Your task to perform on an android device: Go to display settings Image 0: 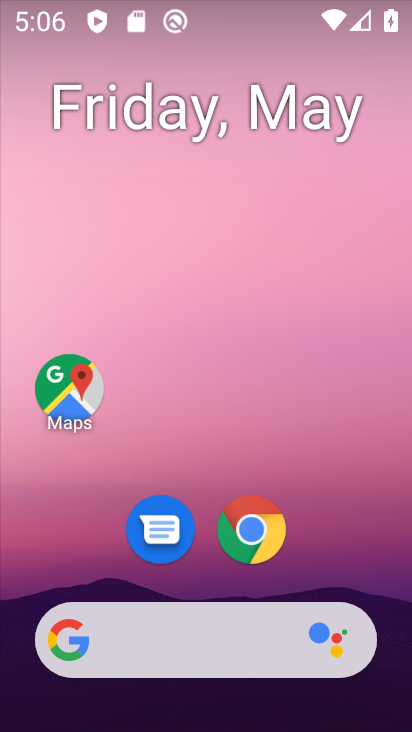
Step 0: drag from (209, 577) to (255, 0)
Your task to perform on an android device: Go to display settings Image 1: 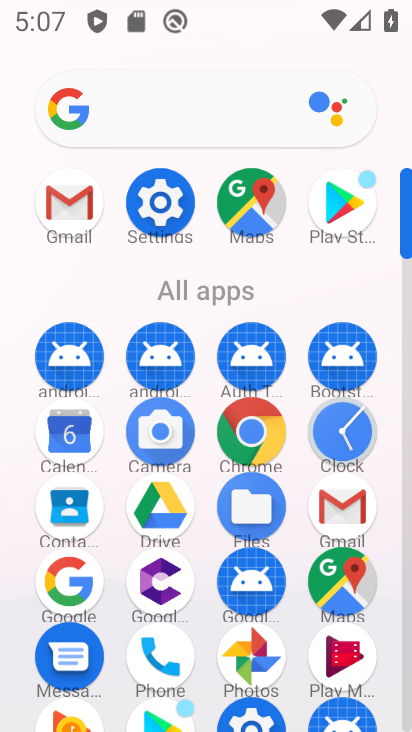
Step 1: click (160, 182)
Your task to perform on an android device: Go to display settings Image 2: 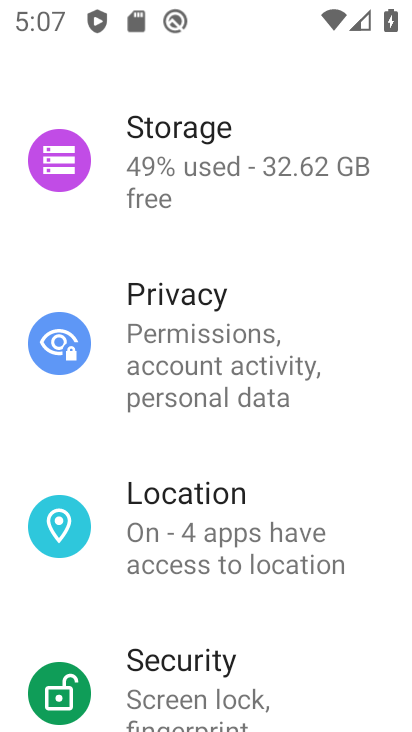
Step 2: drag from (169, 615) to (281, 139)
Your task to perform on an android device: Go to display settings Image 3: 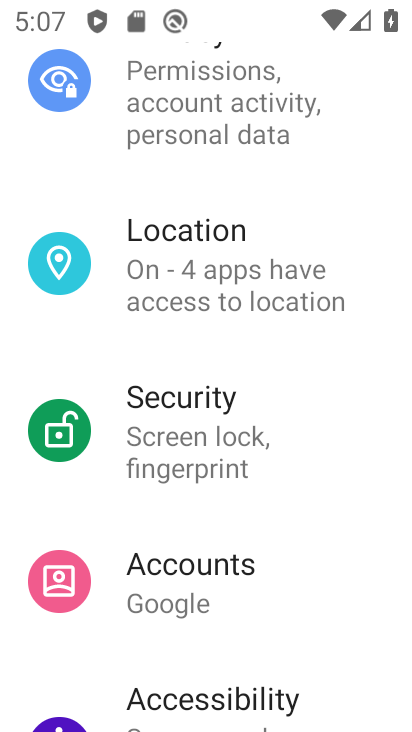
Step 3: drag from (64, 652) to (149, 219)
Your task to perform on an android device: Go to display settings Image 4: 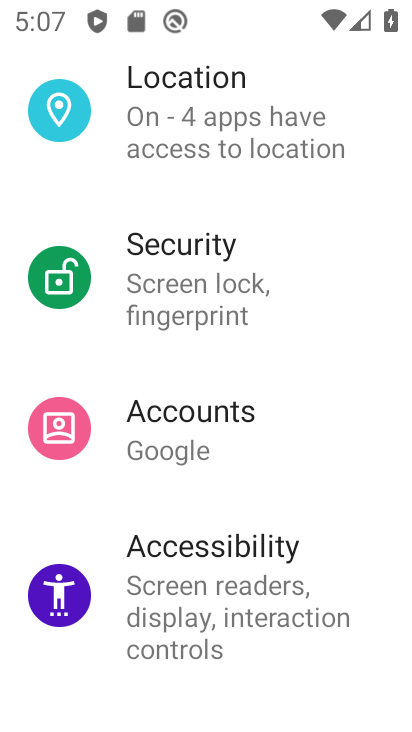
Step 4: drag from (127, 681) to (211, 225)
Your task to perform on an android device: Go to display settings Image 5: 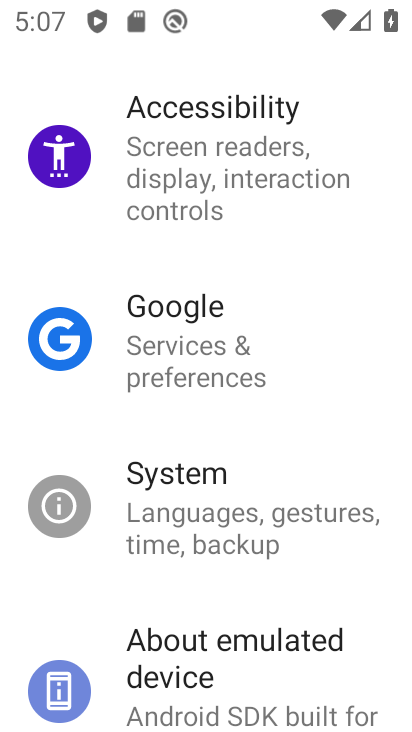
Step 5: drag from (115, 528) to (196, 228)
Your task to perform on an android device: Go to display settings Image 6: 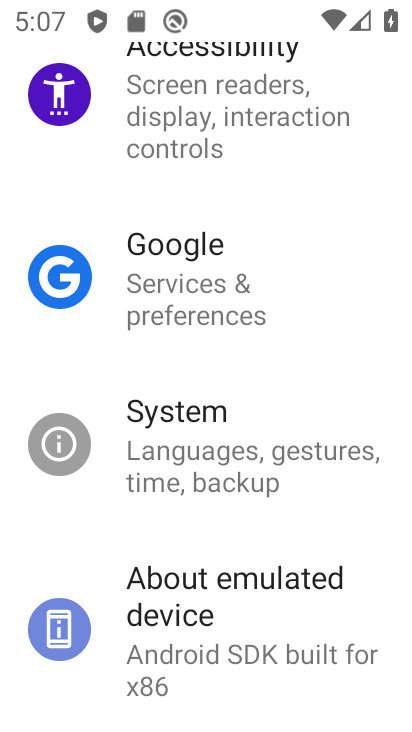
Step 6: drag from (204, 218) to (216, 596)
Your task to perform on an android device: Go to display settings Image 7: 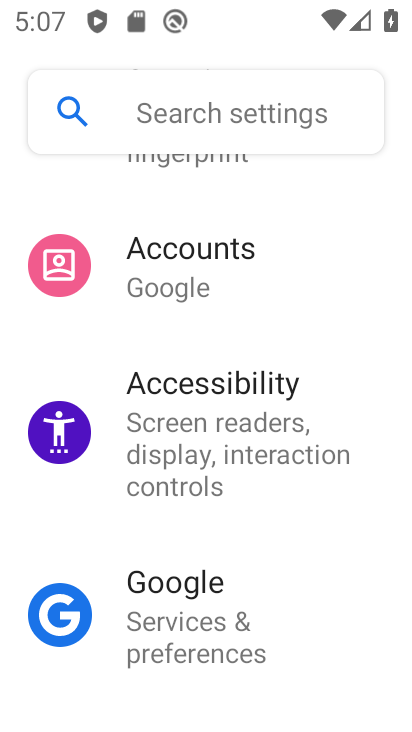
Step 7: drag from (199, 267) to (219, 642)
Your task to perform on an android device: Go to display settings Image 8: 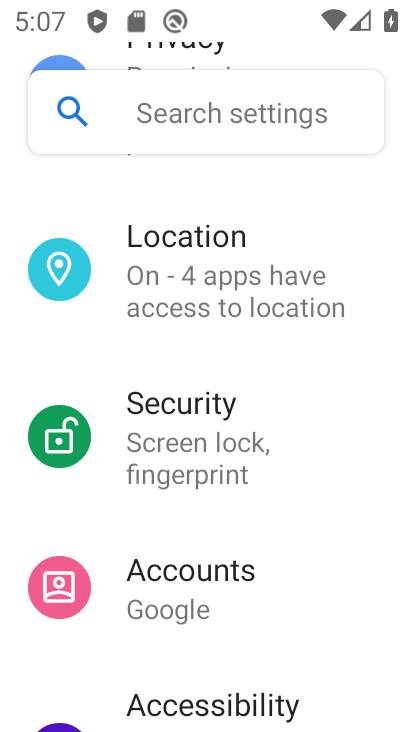
Step 8: drag from (154, 321) to (189, 602)
Your task to perform on an android device: Go to display settings Image 9: 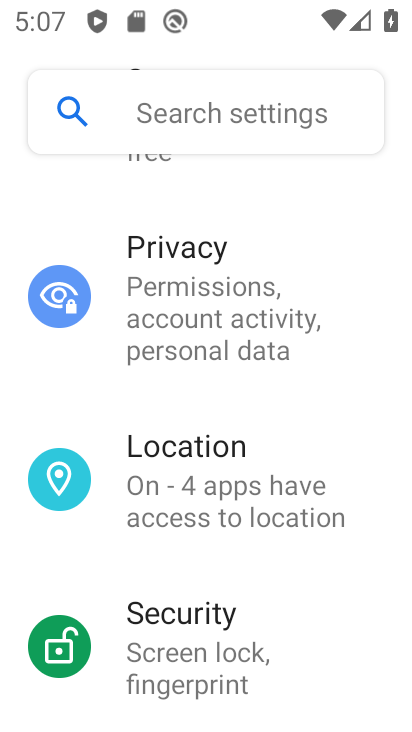
Step 9: drag from (163, 173) to (256, 546)
Your task to perform on an android device: Go to display settings Image 10: 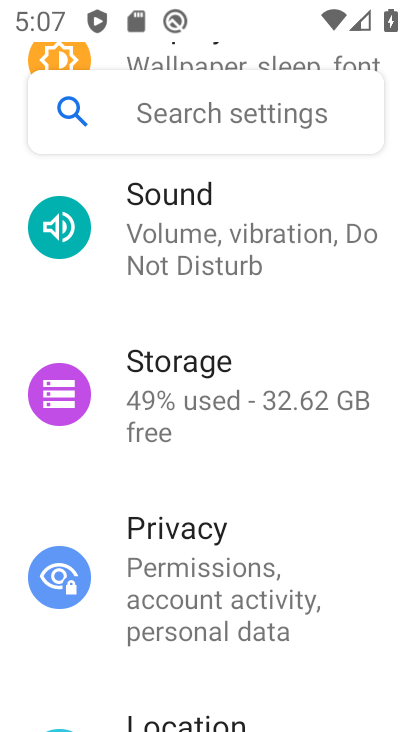
Step 10: drag from (225, 317) to (246, 574)
Your task to perform on an android device: Go to display settings Image 11: 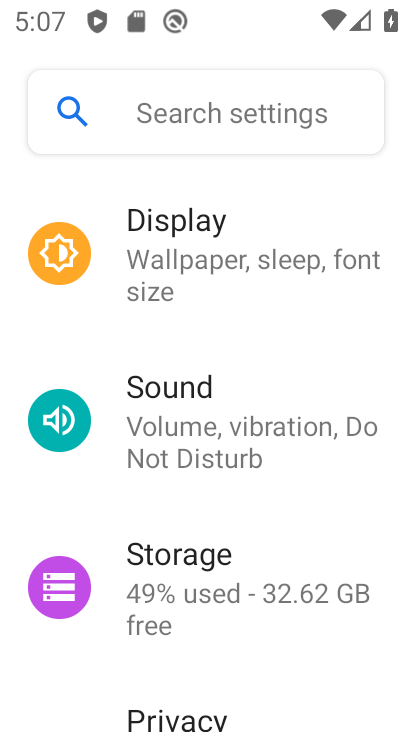
Step 11: click (176, 271)
Your task to perform on an android device: Go to display settings Image 12: 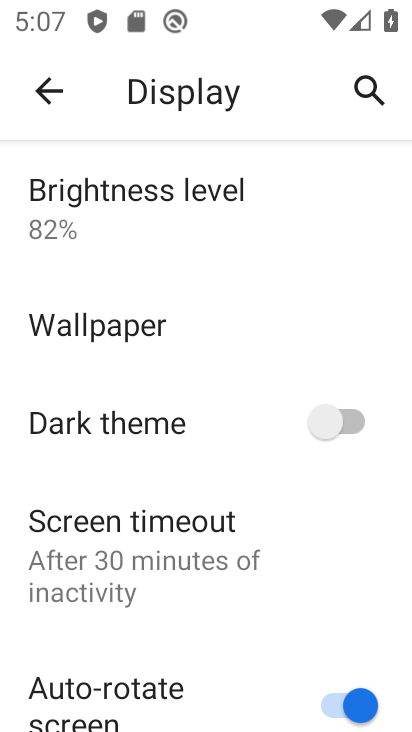
Step 12: task complete